Your task to perform on an android device: turn off location Image 0: 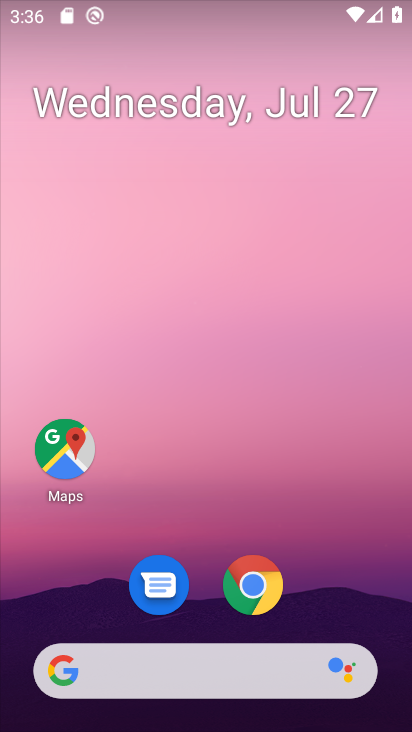
Step 0: drag from (347, 564) to (336, 58)
Your task to perform on an android device: turn off location Image 1: 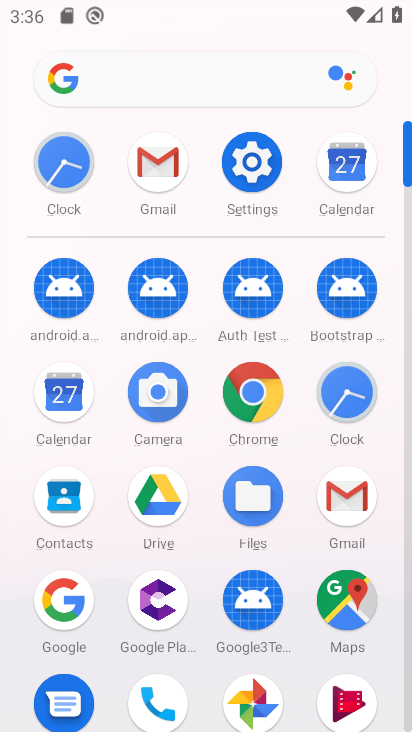
Step 1: click (263, 163)
Your task to perform on an android device: turn off location Image 2: 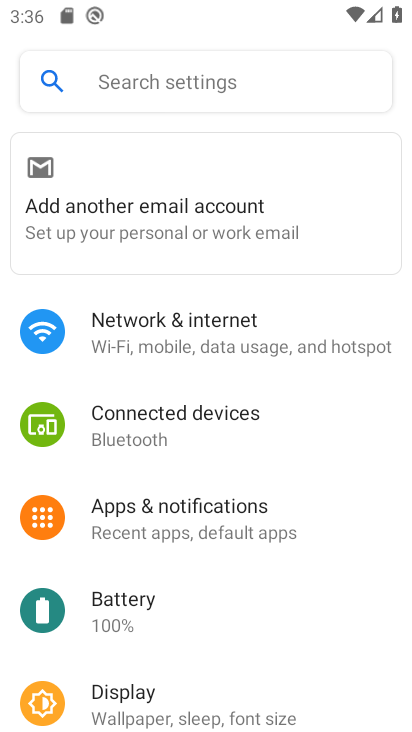
Step 2: drag from (212, 584) to (253, 0)
Your task to perform on an android device: turn off location Image 3: 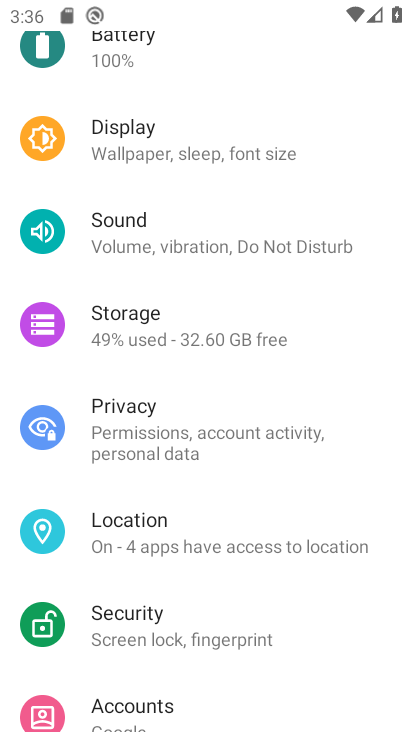
Step 3: click (215, 524)
Your task to perform on an android device: turn off location Image 4: 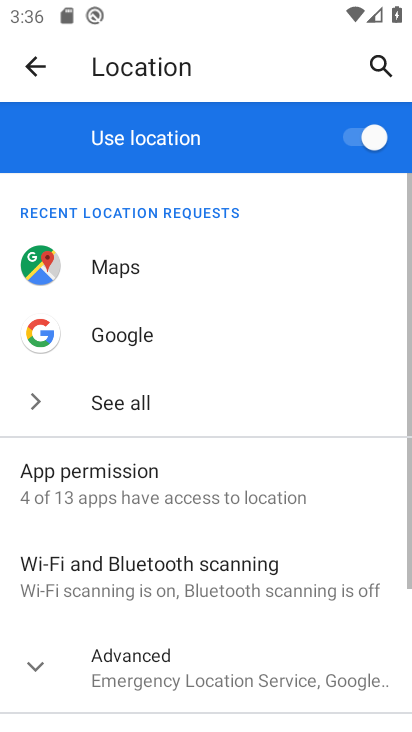
Step 4: click (356, 132)
Your task to perform on an android device: turn off location Image 5: 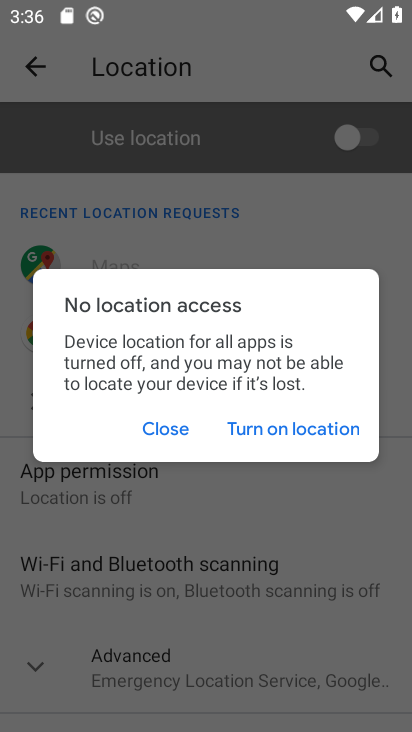
Step 5: click (180, 428)
Your task to perform on an android device: turn off location Image 6: 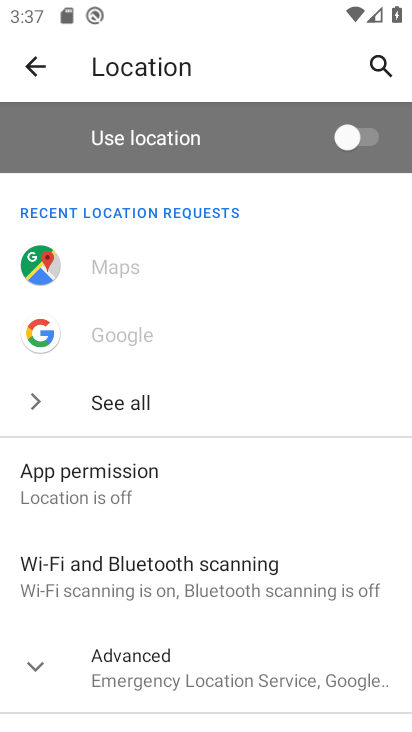
Step 6: task complete